Your task to perform on an android device: Go to internet settings Image 0: 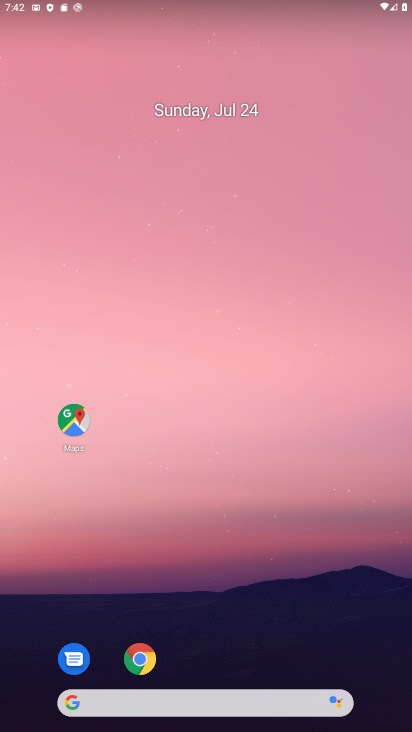
Step 0: drag from (176, 399) to (176, 127)
Your task to perform on an android device: Go to internet settings Image 1: 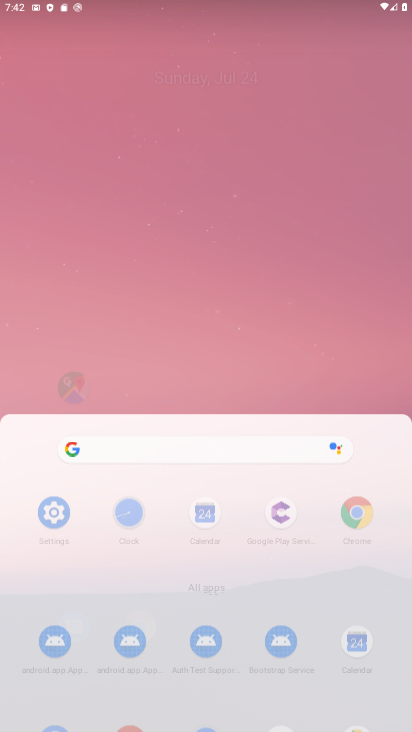
Step 1: drag from (246, 568) to (224, 136)
Your task to perform on an android device: Go to internet settings Image 2: 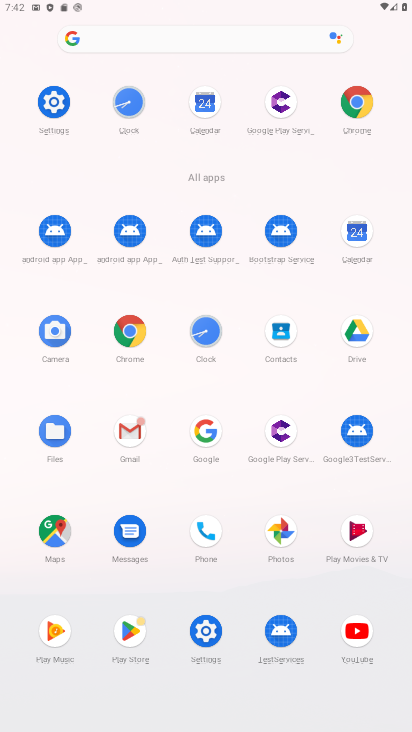
Step 2: drag from (268, 543) to (209, 223)
Your task to perform on an android device: Go to internet settings Image 3: 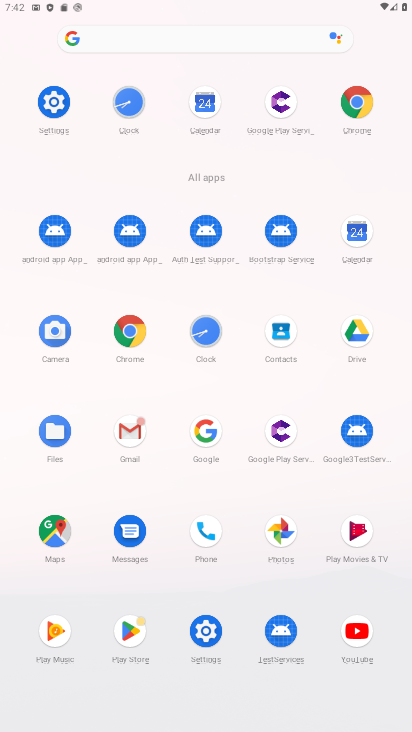
Step 3: click (210, 631)
Your task to perform on an android device: Go to internet settings Image 4: 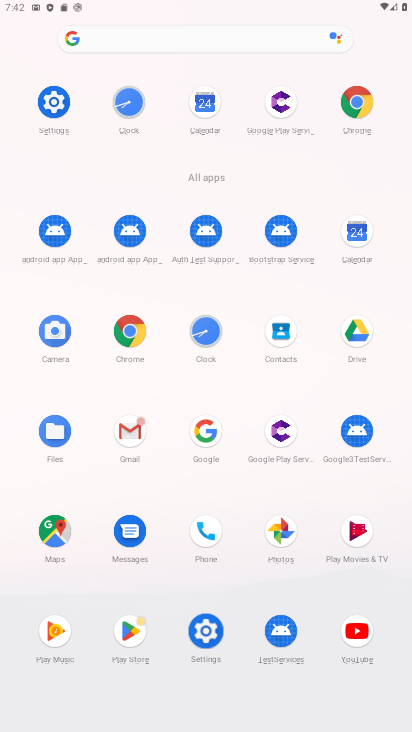
Step 4: click (210, 631)
Your task to perform on an android device: Go to internet settings Image 5: 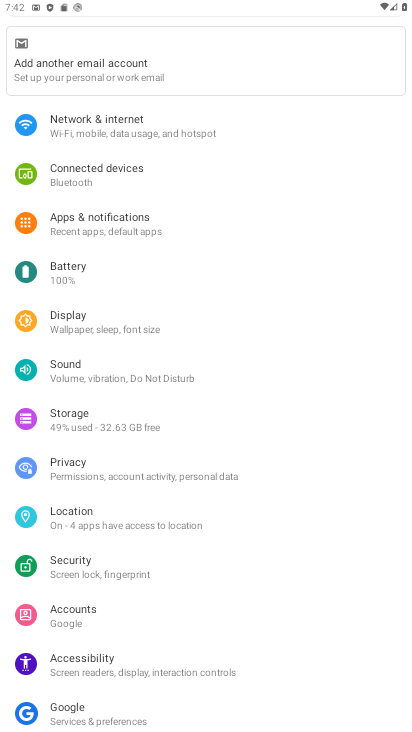
Step 5: click (109, 133)
Your task to perform on an android device: Go to internet settings Image 6: 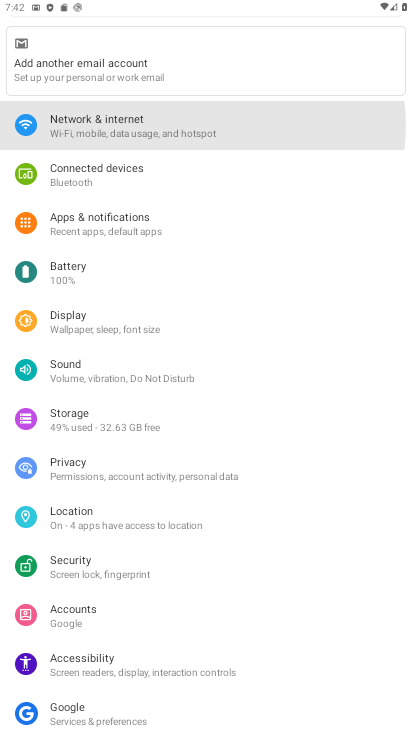
Step 6: click (108, 136)
Your task to perform on an android device: Go to internet settings Image 7: 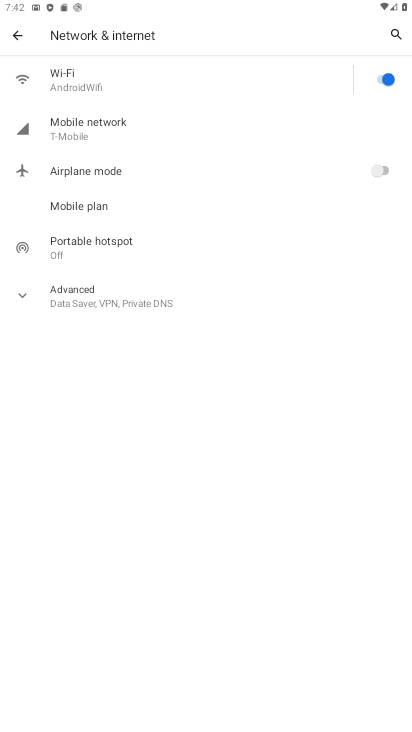
Step 7: click (67, 127)
Your task to perform on an android device: Go to internet settings Image 8: 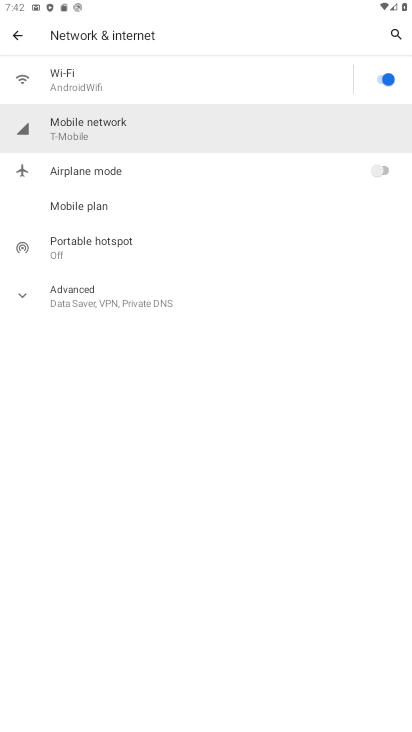
Step 8: click (67, 127)
Your task to perform on an android device: Go to internet settings Image 9: 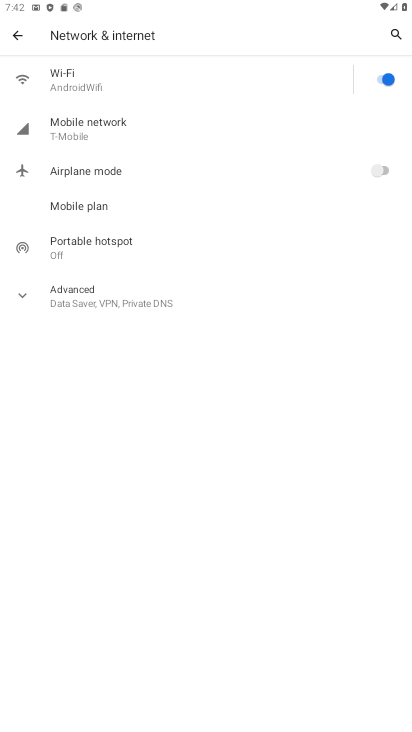
Step 9: click (67, 127)
Your task to perform on an android device: Go to internet settings Image 10: 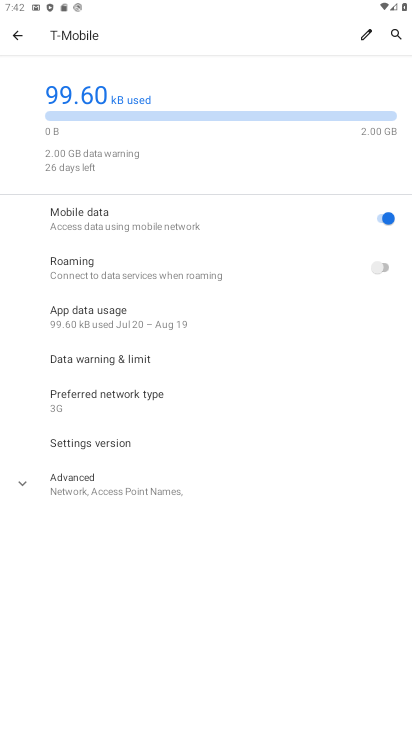
Step 10: task complete